Your task to perform on an android device: Open Google Chrome Image 0: 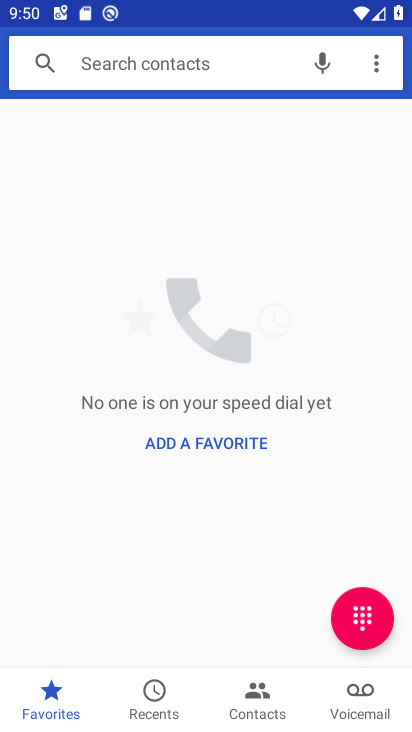
Step 0: press home button
Your task to perform on an android device: Open Google Chrome Image 1: 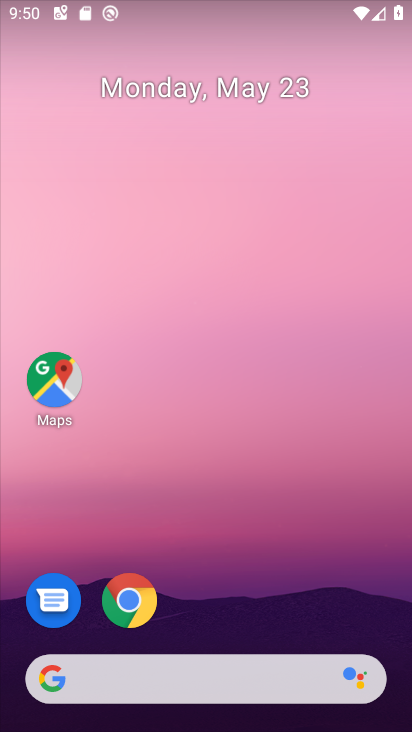
Step 1: click (120, 597)
Your task to perform on an android device: Open Google Chrome Image 2: 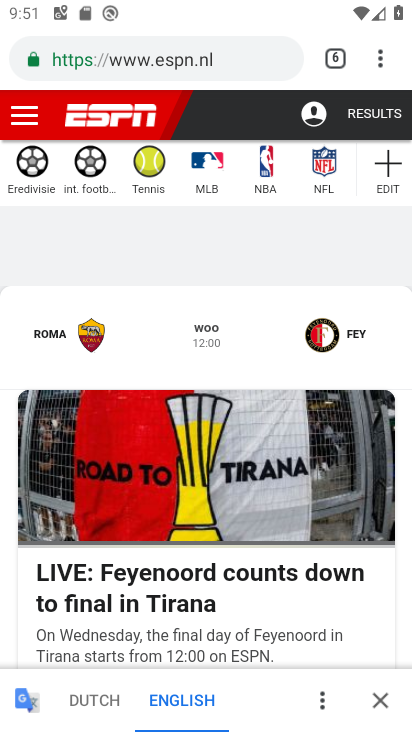
Step 2: task complete